Your task to perform on an android device: Add "razer naga" to the cart on costco, then select checkout. Image 0: 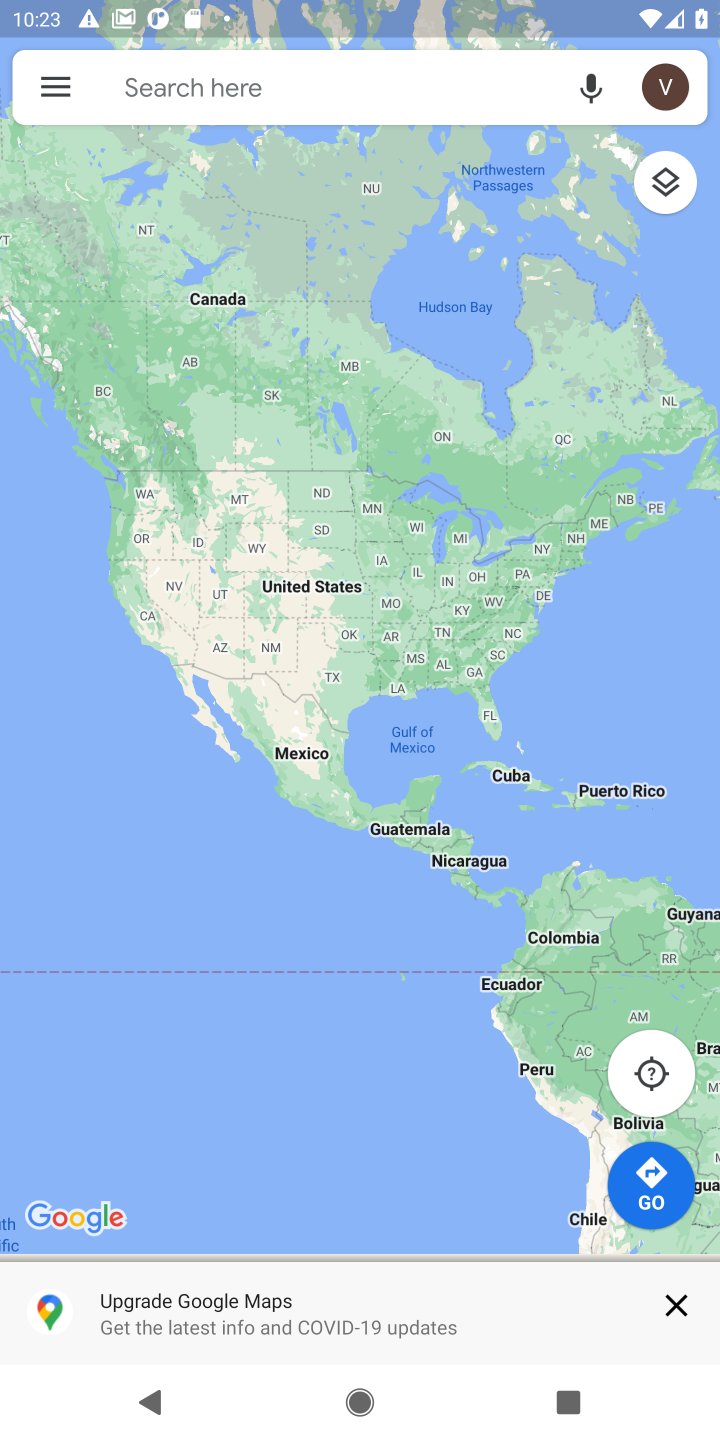
Step 0: press home button
Your task to perform on an android device: Add "razer naga" to the cart on costco, then select checkout. Image 1: 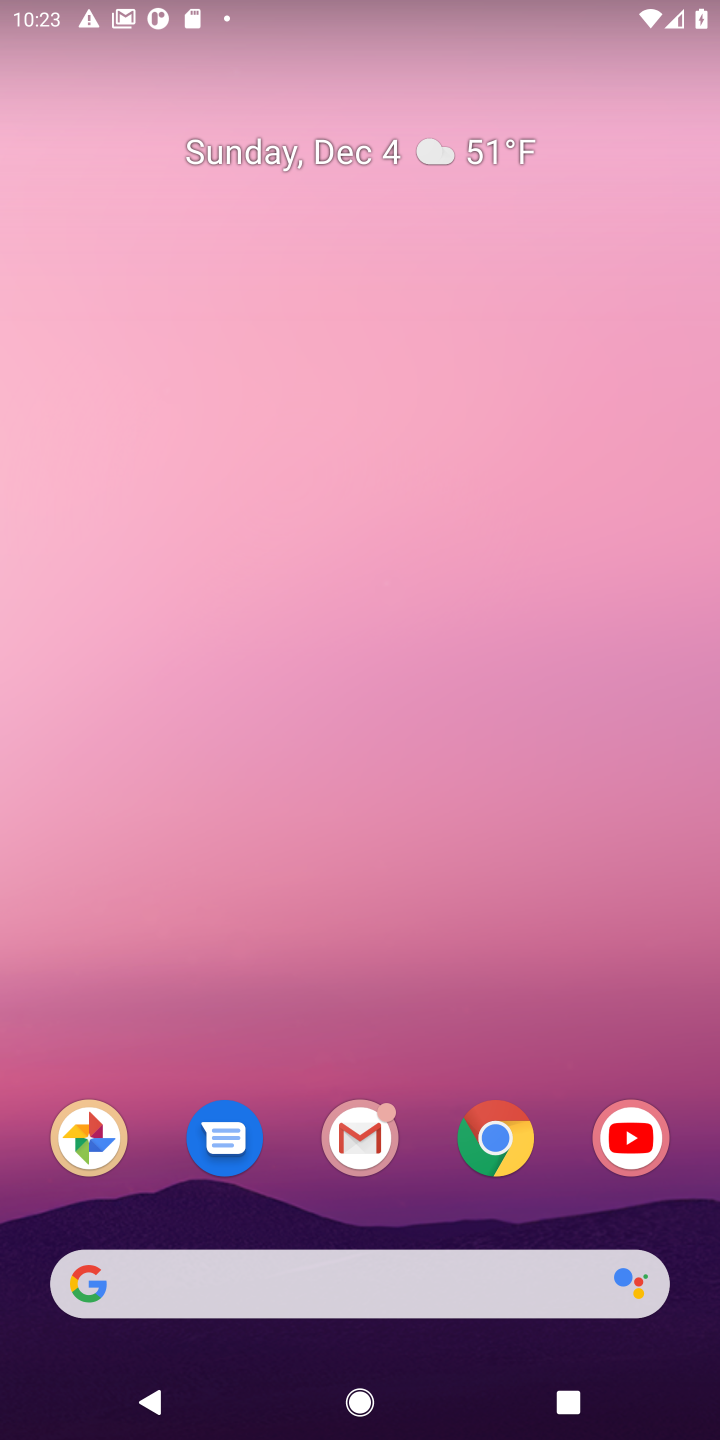
Step 1: click (501, 1134)
Your task to perform on an android device: Add "razer naga" to the cart on costco, then select checkout. Image 2: 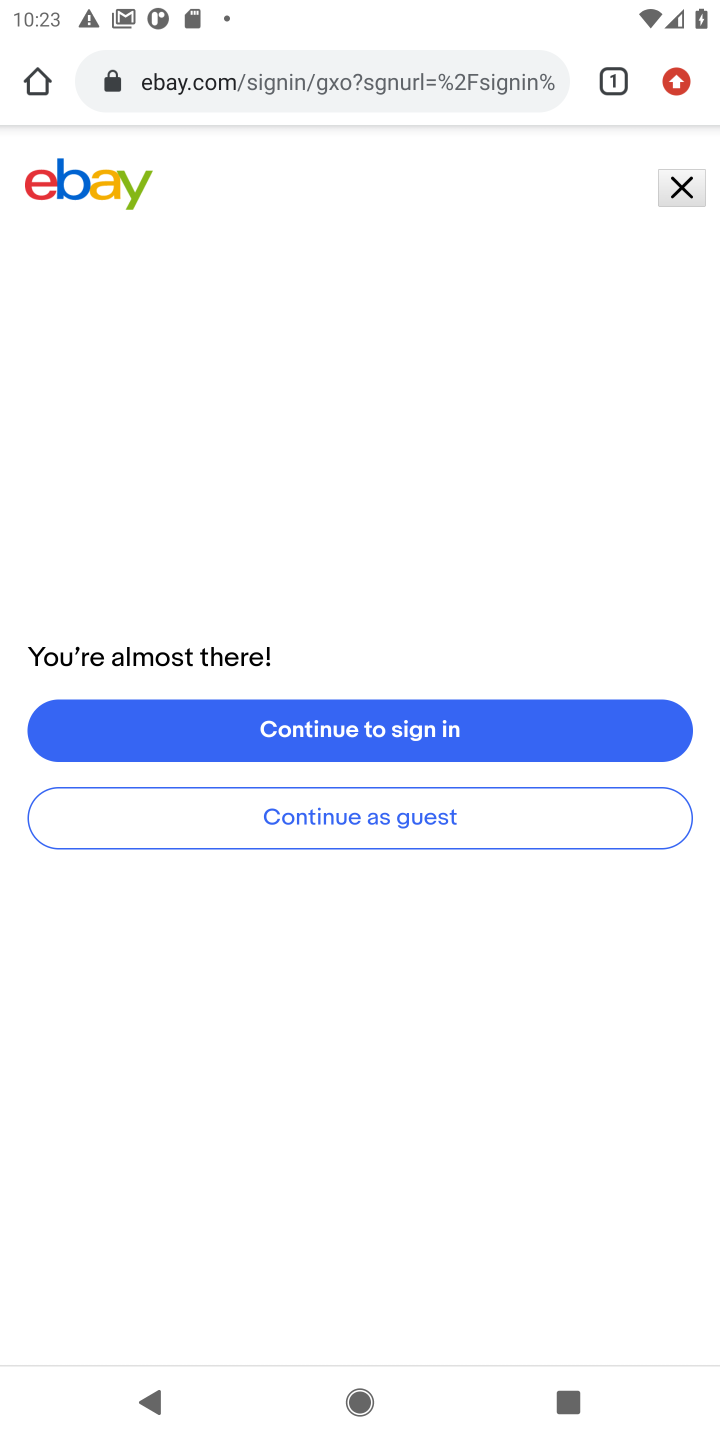
Step 2: click (391, 74)
Your task to perform on an android device: Add "razer naga" to the cart on costco, then select checkout. Image 3: 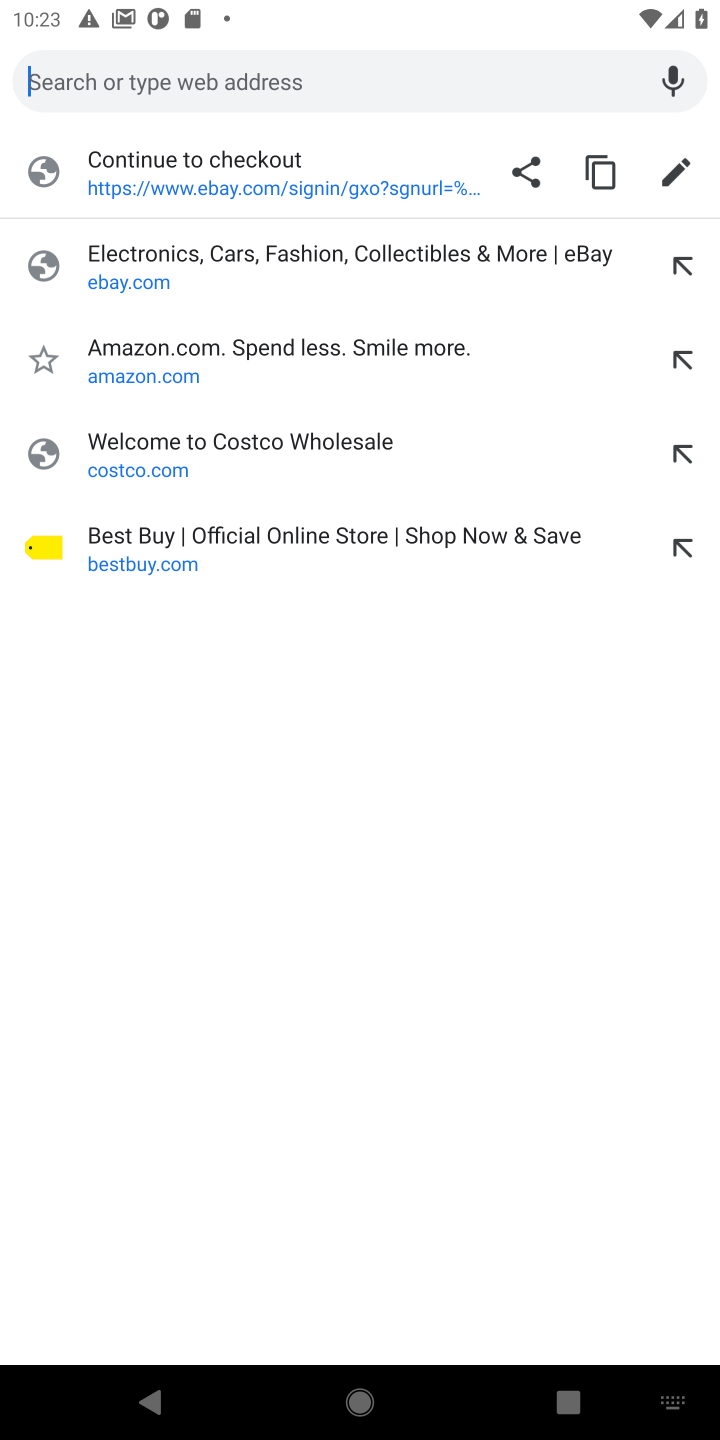
Step 3: click (252, 438)
Your task to perform on an android device: Add "razer naga" to the cart on costco, then select checkout. Image 4: 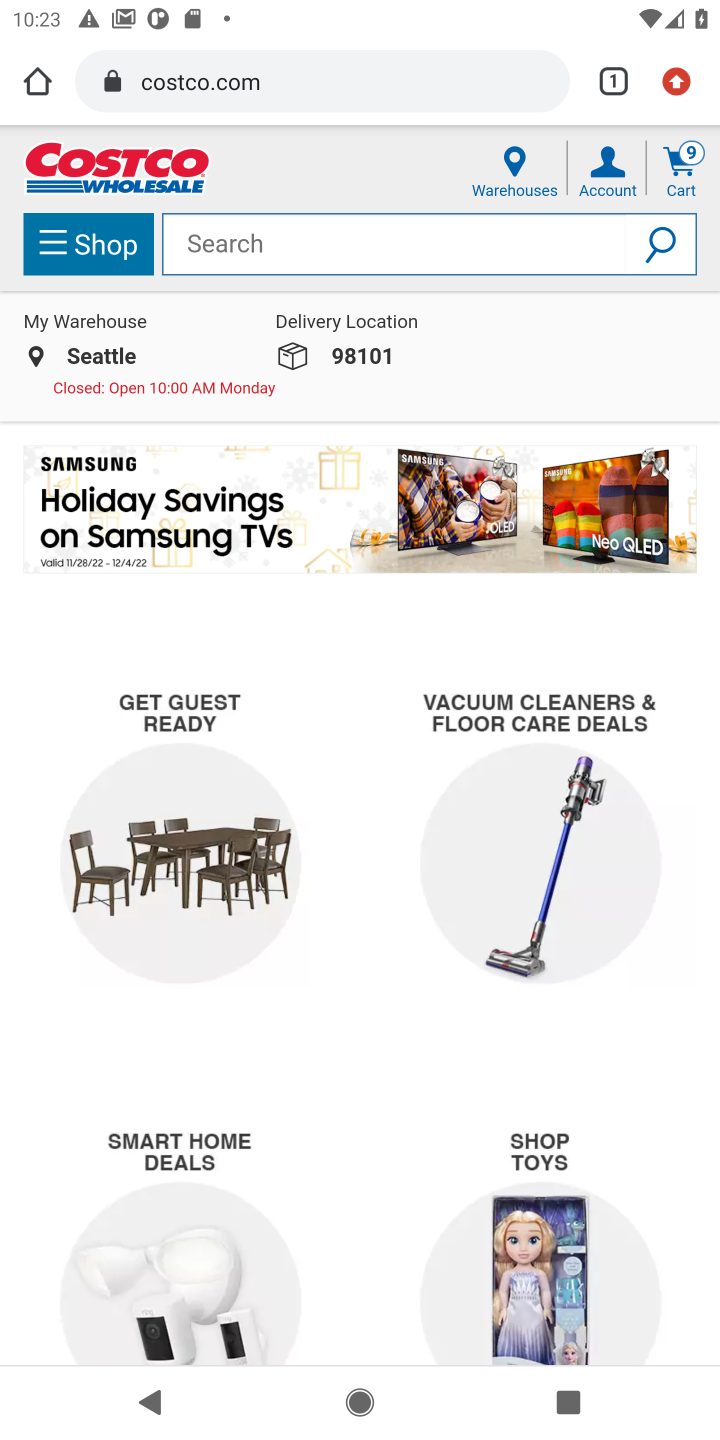
Step 4: click (595, 238)
Your task to perform on an android device: Add "razer naga" to the cart on costco, then select checkout. Image 5: 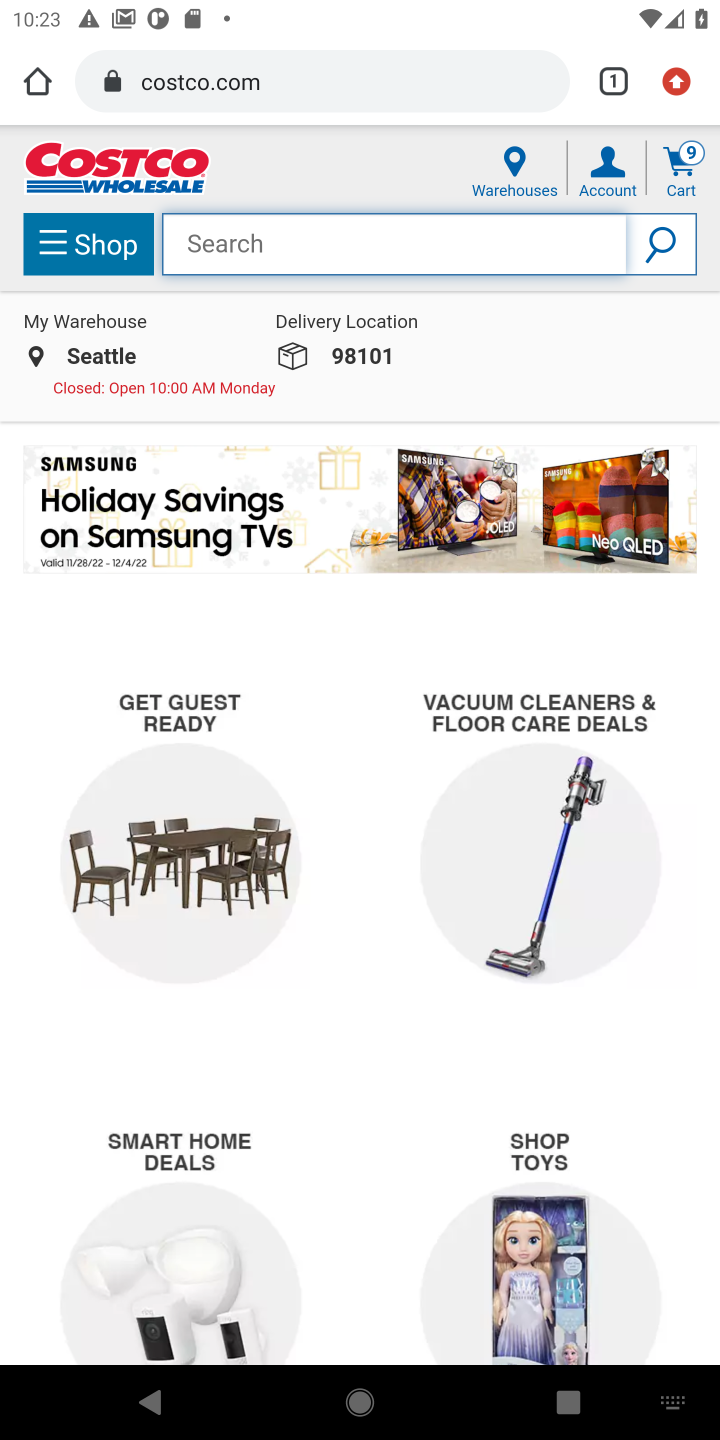
Step 5: type "razer naga"
Your task to perform on an android device: Add "razer naga" to the cart on costco, then select checkout. Image 6: 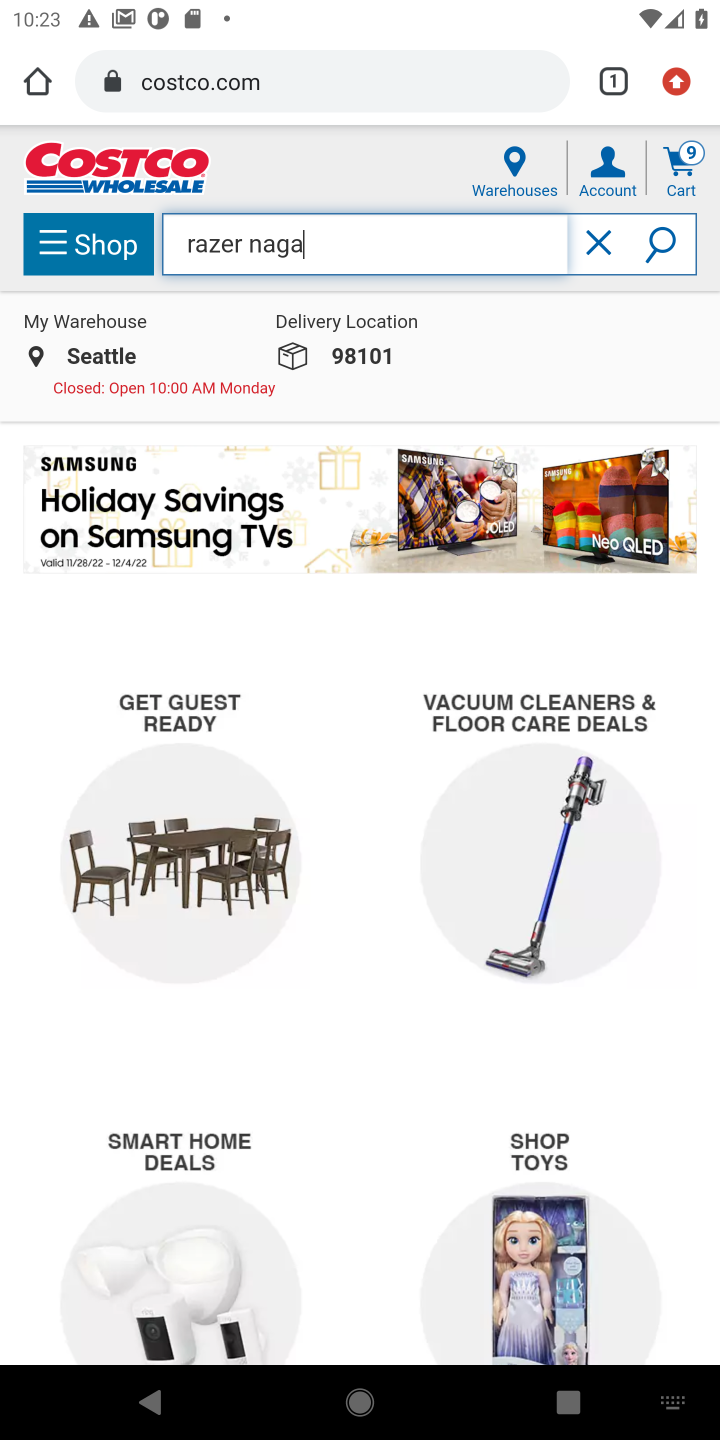
Step 6: press enter
Your task to perform on an android device: Add "razer naga" to the cart on costco, then select checkout. Image 7: 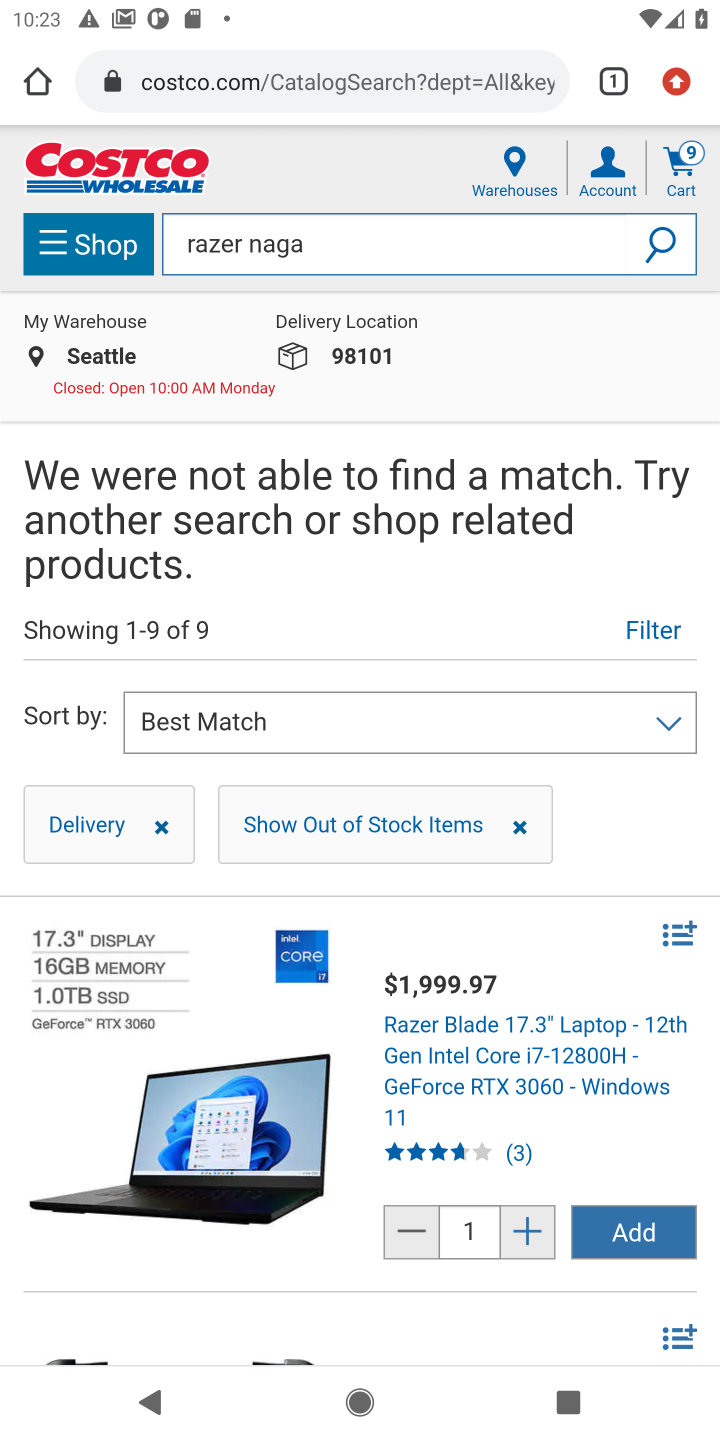
Step 7: task complete